Your task to perform on an android device: Search for Mexican restaurants on Maps Image 0: 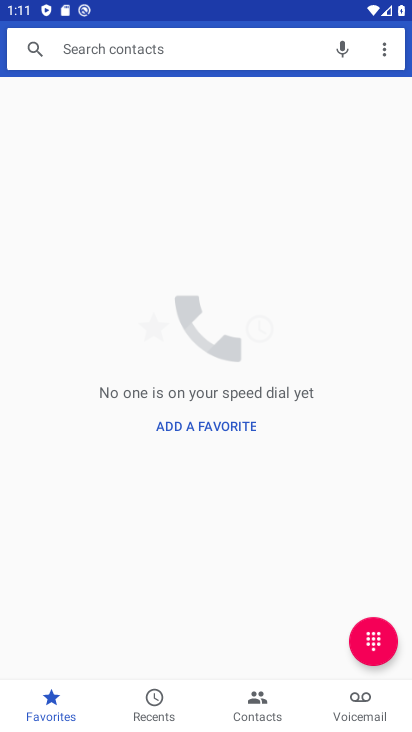
Step 0: press home button
Your task to perform on an android device: Search for Mexican restaurants on Maps Image 1: 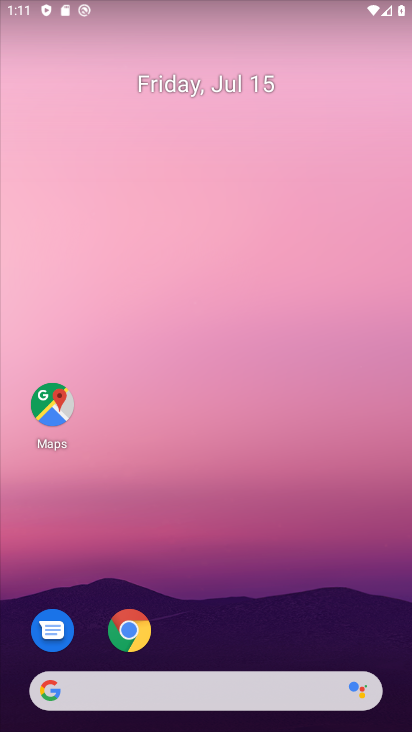
Step 1: drag from (292, 623) to (208, 227)
Your task to perform on an android device: Search for Mexican restaurants on Maps Image 2: 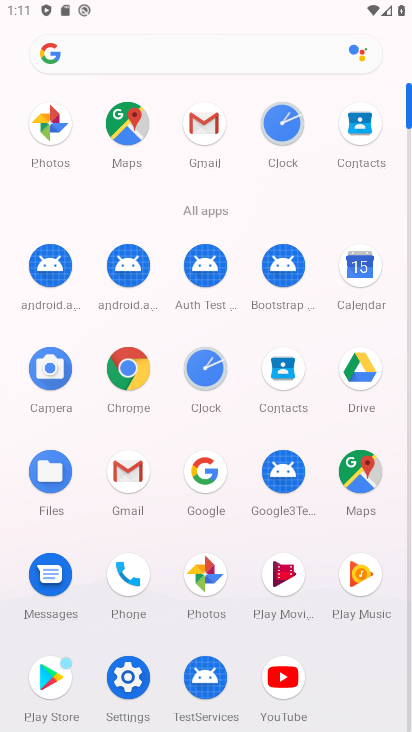
Step 2: click (130, 122)
Your task to perform on an android device: Search for Mexican restaurants on Maps Image 3: 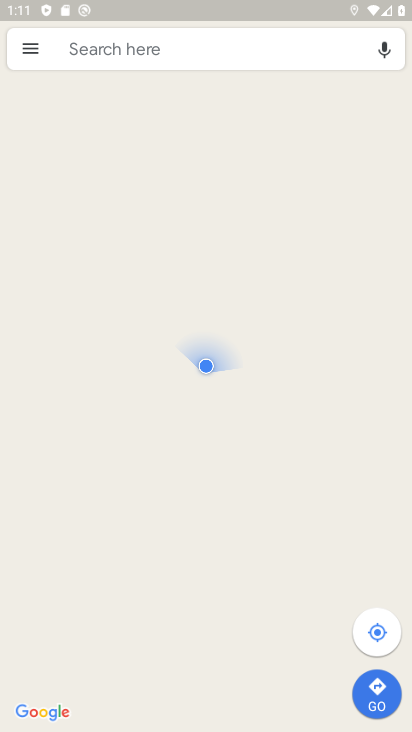
Step 3: click (157, 45)
Your task to perform on an android device: Search for Mexican restaurants on Maps Image 4: 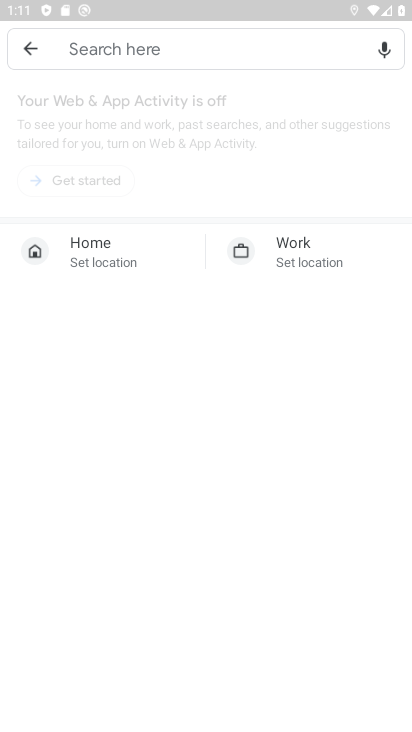
Step 4: click (227, 61)
Your task to perform on an android device: Search for Mexican restaurants on Maps Image 5: 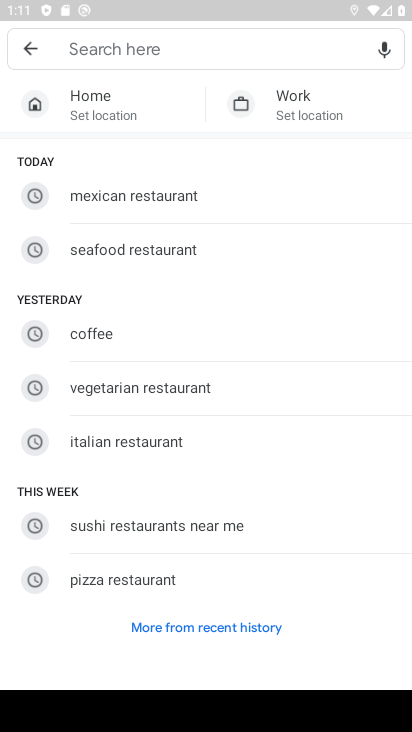
Step 5: click (144, 207)
Your task to perform on an android device: Search for Mexican restaurants on Maps Image 6: 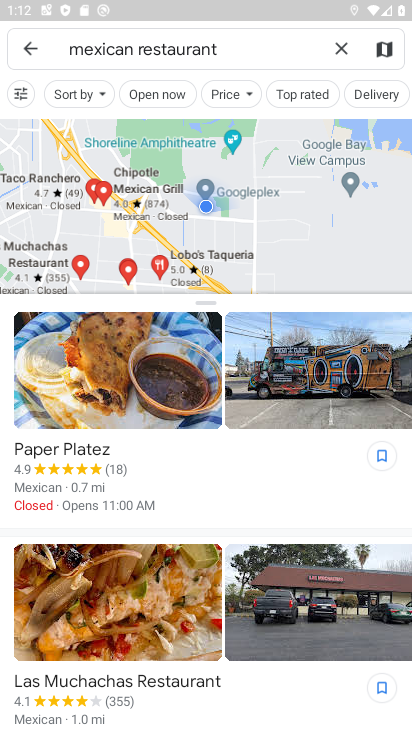
Step 6: task complete